Your task to perform on an android device: change keyboard looks Image 0: 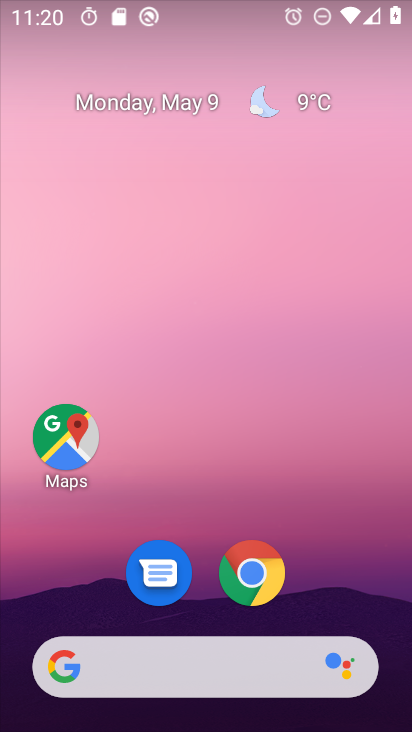
Step 0: drag from (325, 518) to (237, 56)
Your task to perform on an android device: change keyboard looks Image 1: 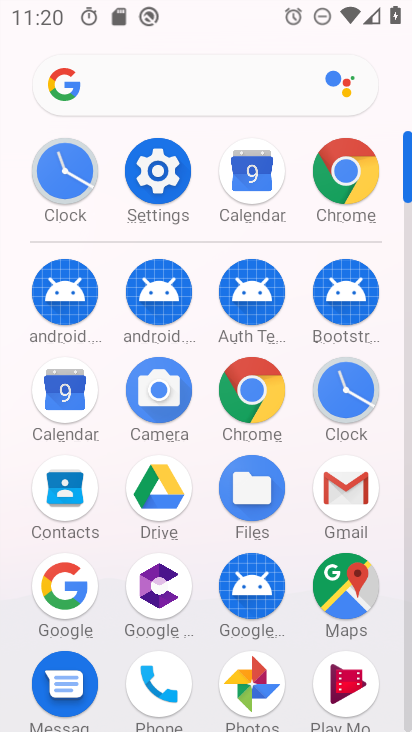
Step 1: click (171, 162)
Your task to perform on an android device: change keyboard looks Image 2: 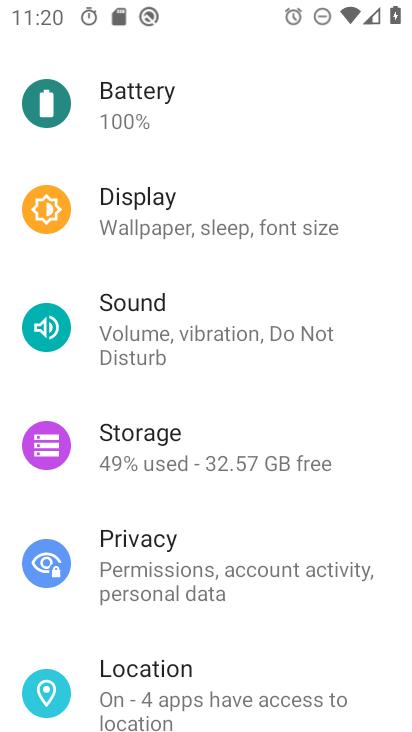
Step 2: drag from (226, 618) to (254, 203)
Your task to perform on an android device: change keyboard looks Image 3: 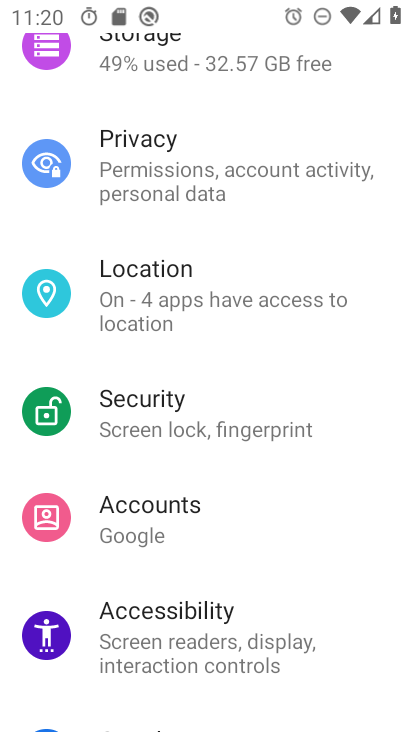
Step 3: drag from (195, 564) to (249, 196)
Your task to perform on an android device: change keyboard looks Image 4: 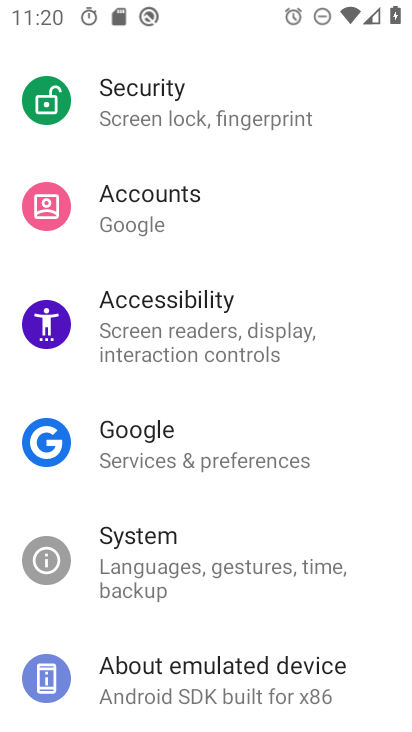
Step 4: click (250, 195)
Your task to perform on an android device: change keyboard looks Image 5: 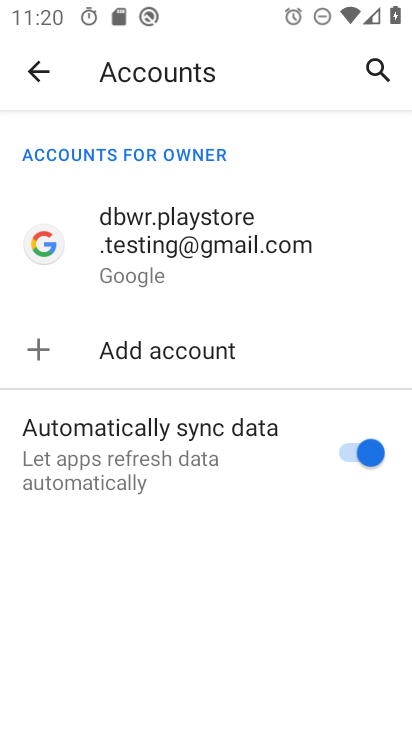
Step 5: drag from (196, 603) to (215, 441)
Your task to perform on an android device: change keyboard looks Image 6: 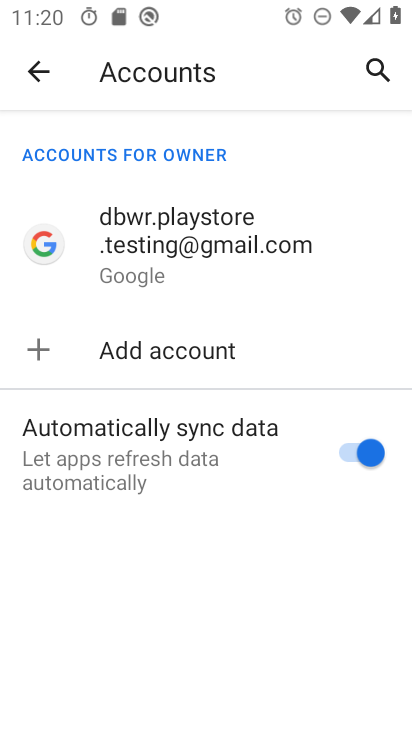
Step 6: click (32, 64)
Your task to perform on an android device: change keyboard looks Image 7: 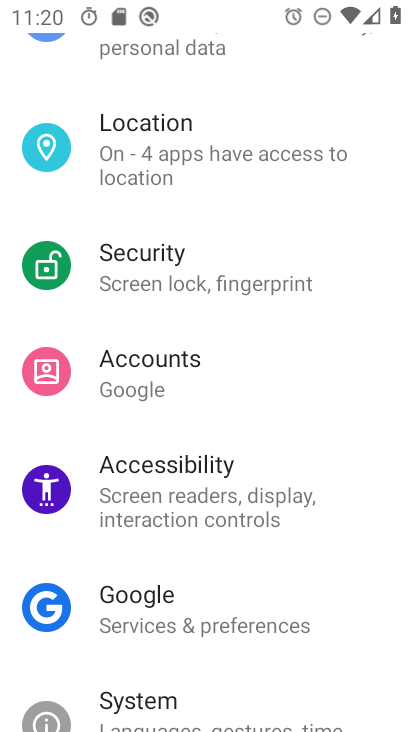
Step 7: drag from (233, 586) to (267, 300)
Your task to perform on an android device: change keyboard looks Image 8: 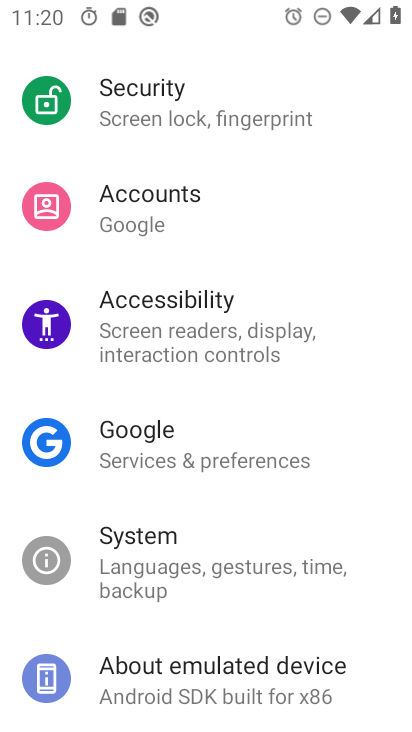
Step 8: click (150, 546)
Your task to perform on an android device: change keyboard looks Image 9: 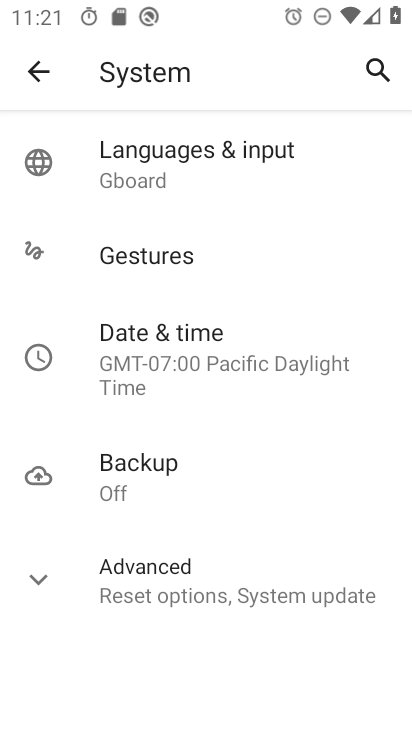
Step 9: click (228, 172)
Your task to perform on an android device: change keyboard looks Image 10: 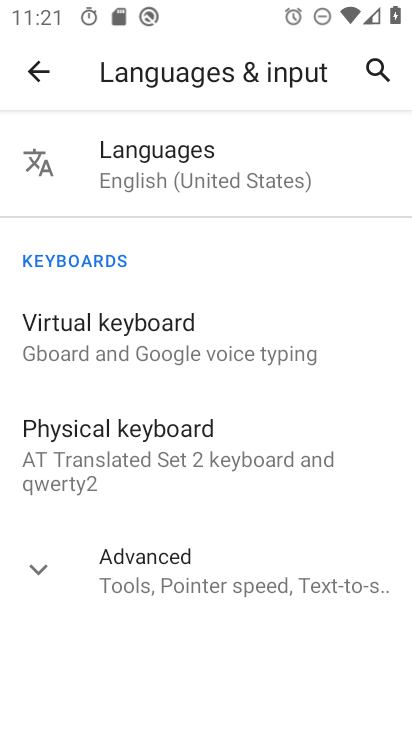
Step 10: click (146, 332)
Your task to perform on an android device: change keyboard looks Image 11: 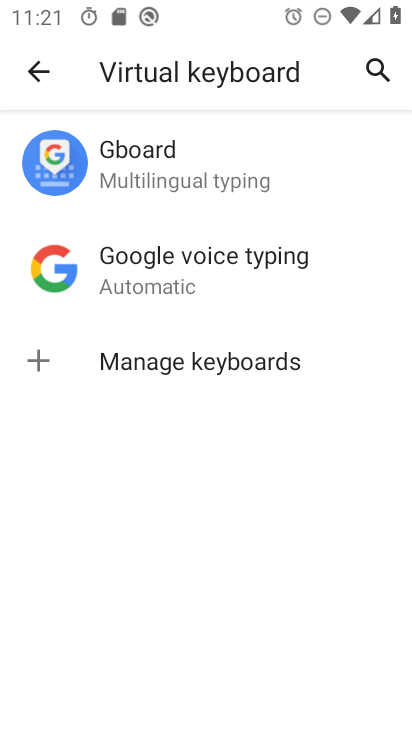
Step 11: click (176, 165)
Your task to perform on an android device: change keyboard looks Image 12: 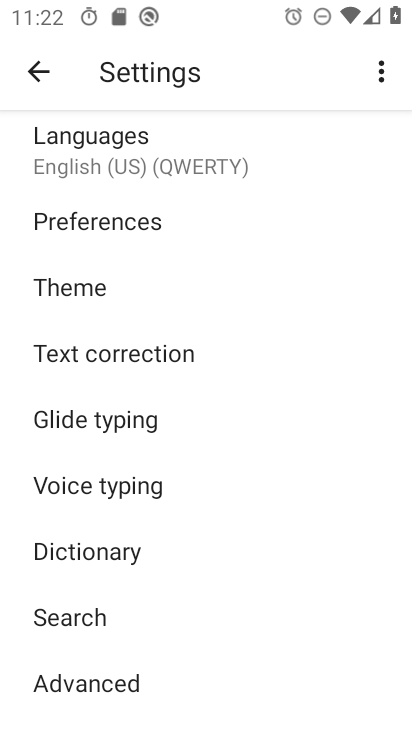
Step 12: click (87, 269)
Your task to perform on an android device: change keyboard looks Image 13: 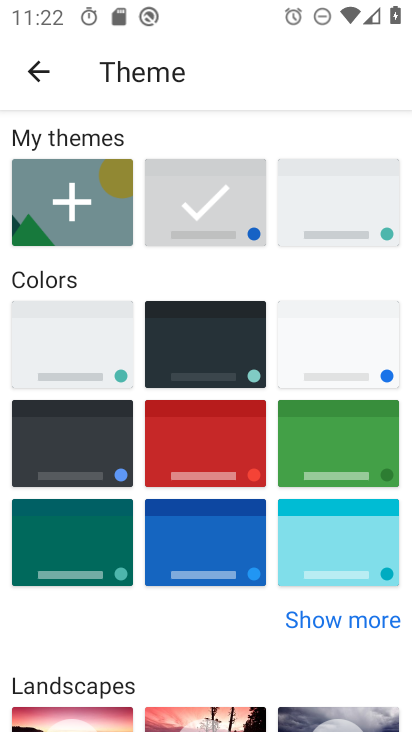
Step 13: click (357, 198)
Your task to perform on an android device: change keyboard looks Image 14: 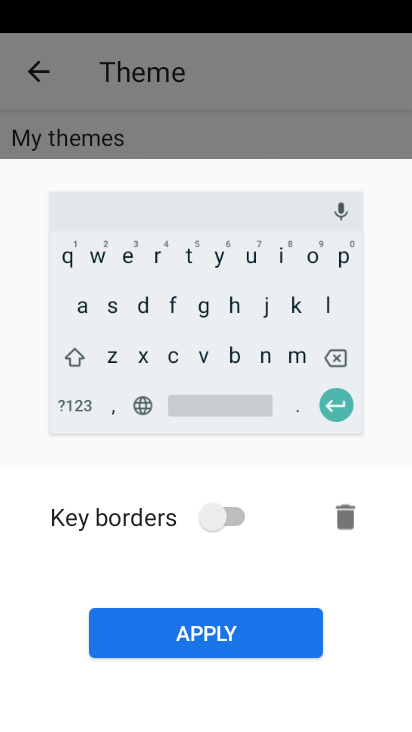
Step 14: click (177, 607)
Your task to perform on an android device: change keyboard looks Image 15: 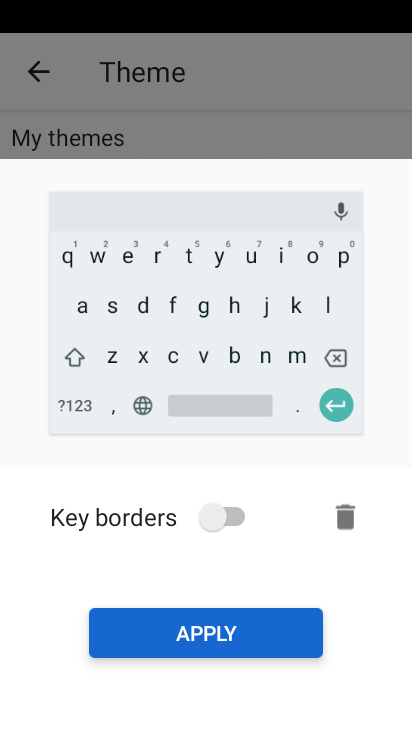
Step 15: click (183, 619)
Your task to perform on an android device: change keyboard looks Image 16: 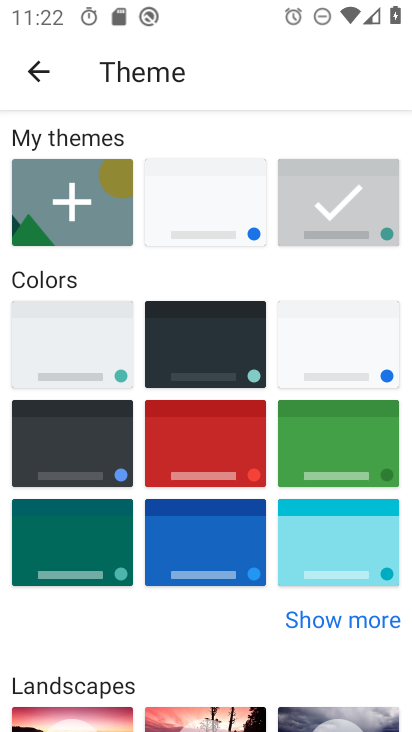
Step 16: task complete